Your task to perform on an android device: Open Google Chrome and open the bookmarks view Image 0: 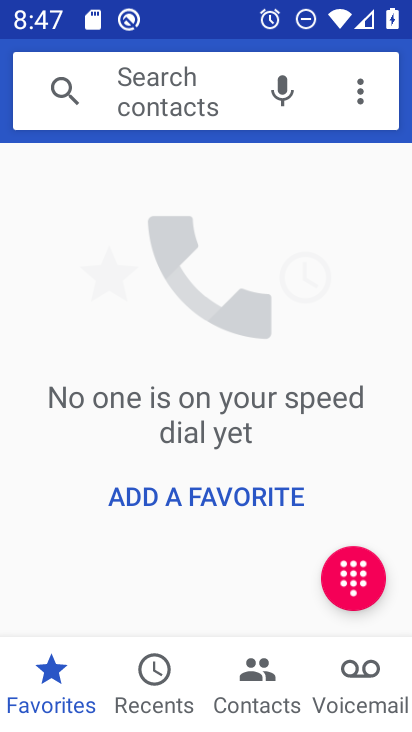
Step 0: press home button
Your task to perform on an android device: Open Google Chrome and open the bookmarks view Image 1: 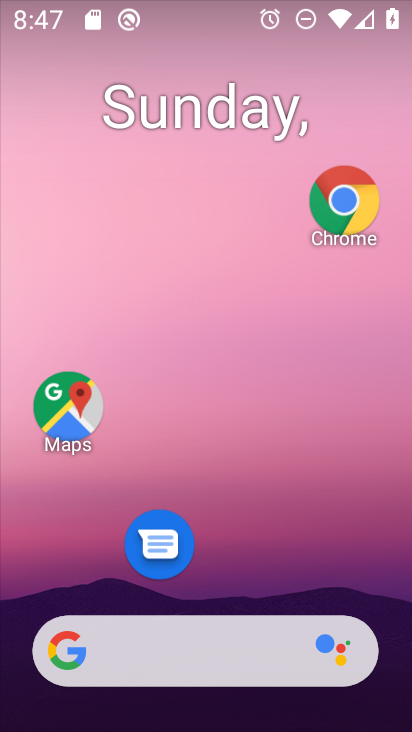
Step 1: click (350, 204)
Your task to perform on an android device: Open Google Chrome and open the bookmarks view Image 2: 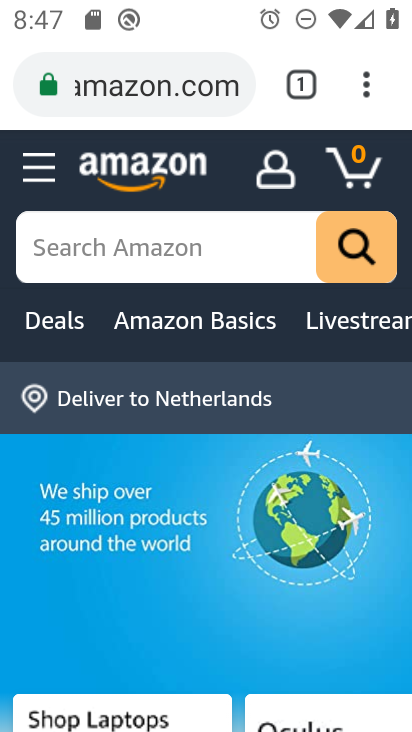
Step 2: click (369, 100)
Your task to perform on an android device: Open Google Chrome and open the bookmarks view Image 3: 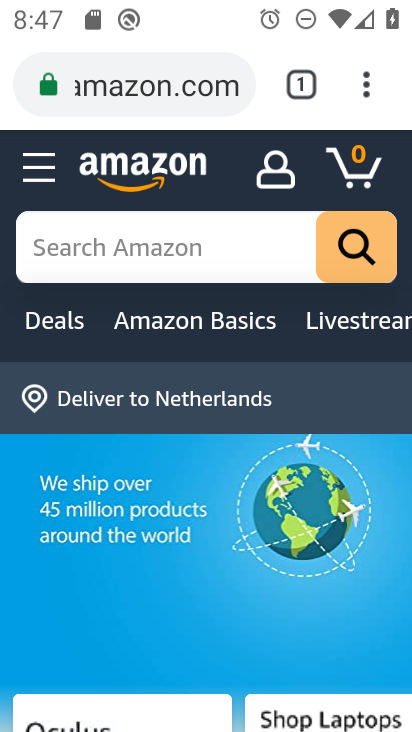
Step 3: click (369, 100)
Your task to perform on an android device: Open Google Chrome and open the bookmarks view Image 4: 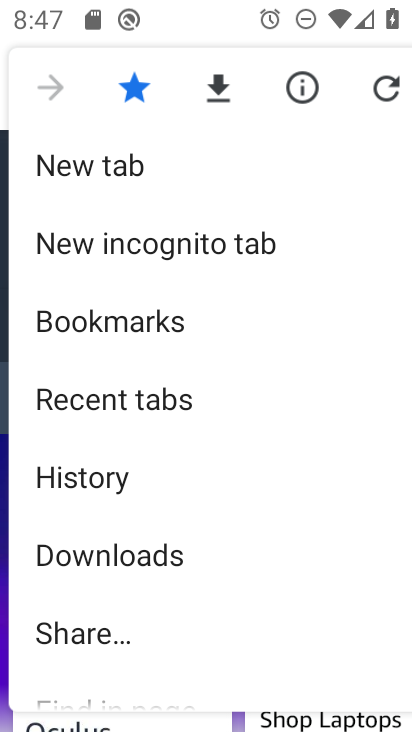
Step 4: click (141, 322)
Your task to perform on an android device: Open Google Chrome and open the bookmarks view Image 5: 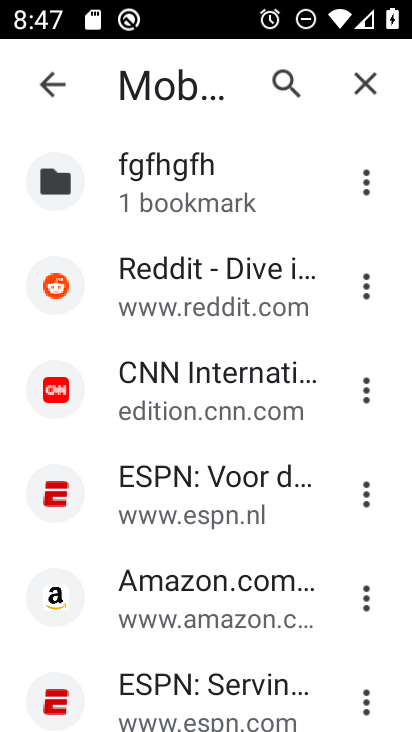
Step 5: task complete